Your task to perform on an android device: Open eBay Image 0: 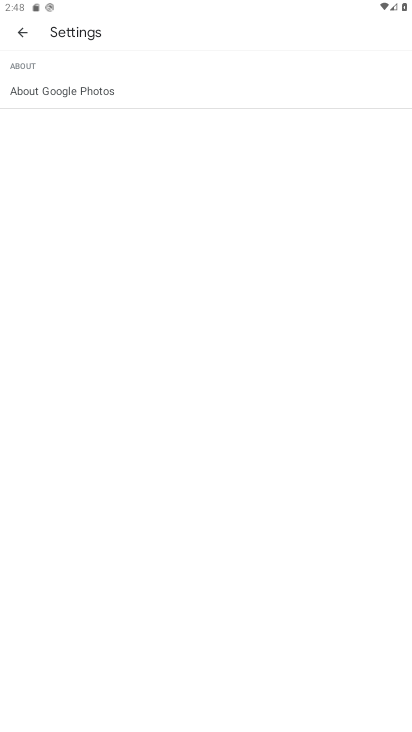
Step 0: press home button
Your task to perform on an android device: Open eBay Image 1: 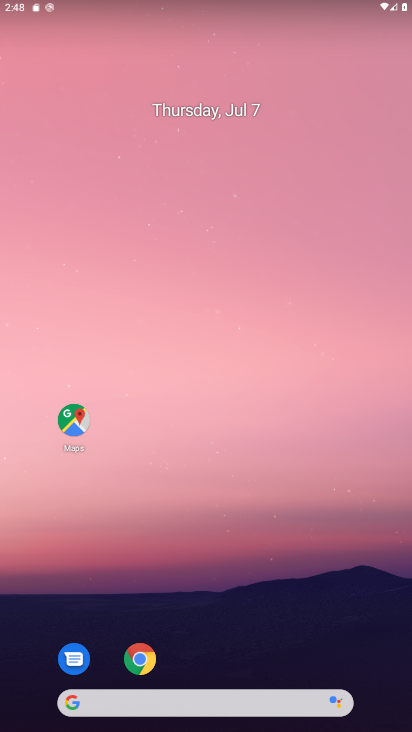
Step 1: drag from (242, 712) to (204, 248)
Your task to perform on an android device: Open eBay Image 2: 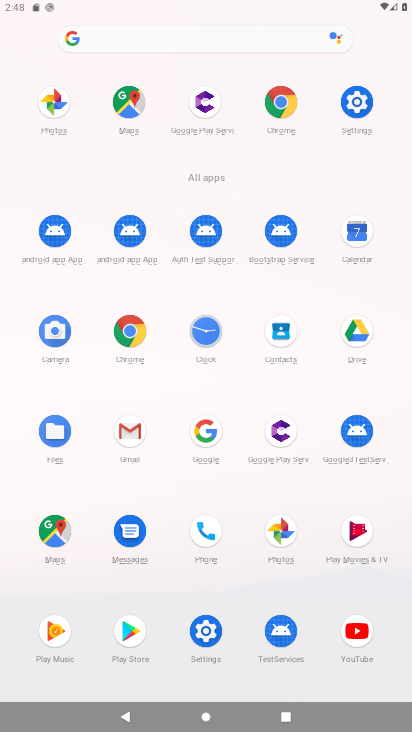
Step 2: click (275, 112)
Your task to perform on an android device: Open eBay Image 3: 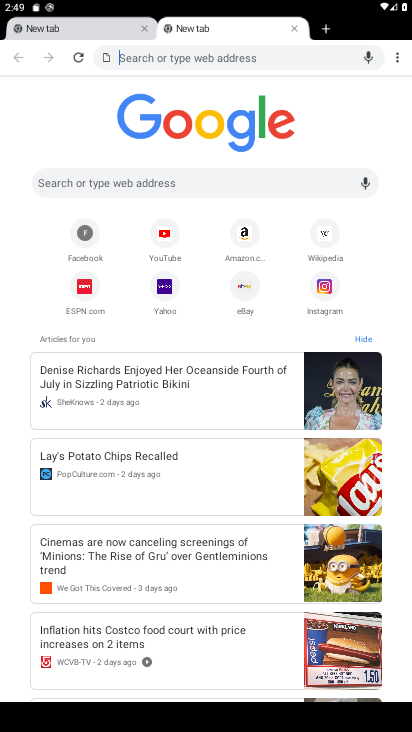
Step 3: click (251, 292)
Your task to perform on an android device: Open eBay Image 4: 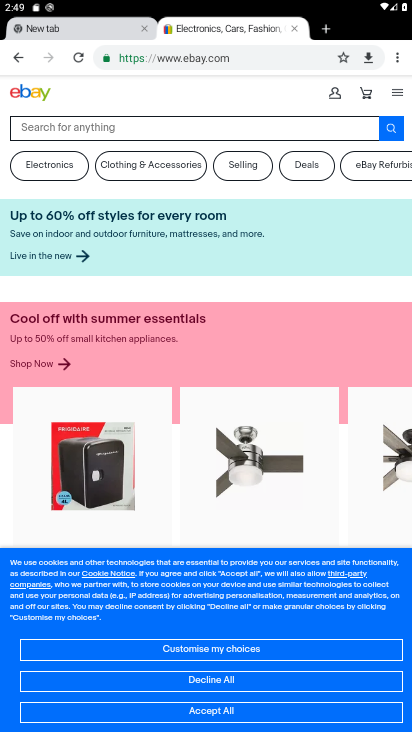
Step 4: task complete